Your task to perform on an android device: Go to settings Image 0: 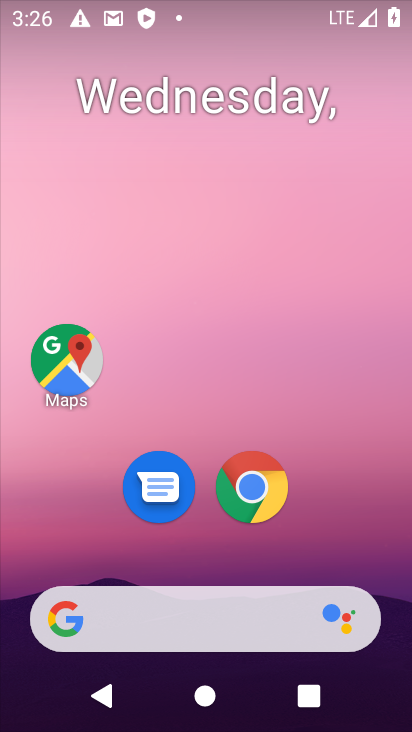
Step 0: drag from (361, 521) to (304, 57)
Your task to perform on an android device: Go to settings Image 1: 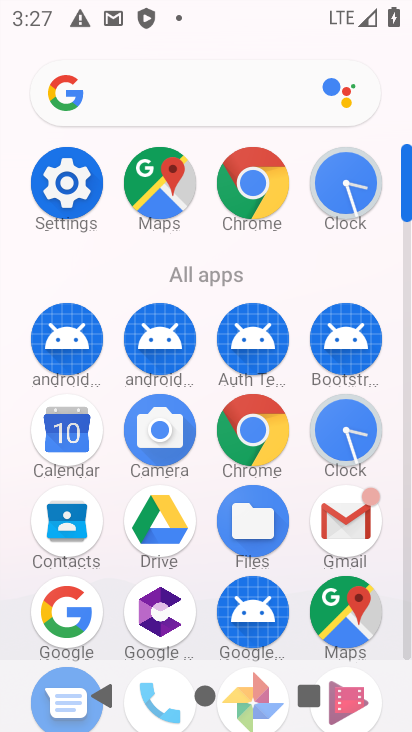
Step 1: click (66, 187)
Your task to perform on an android device: Go to settings Image 2: 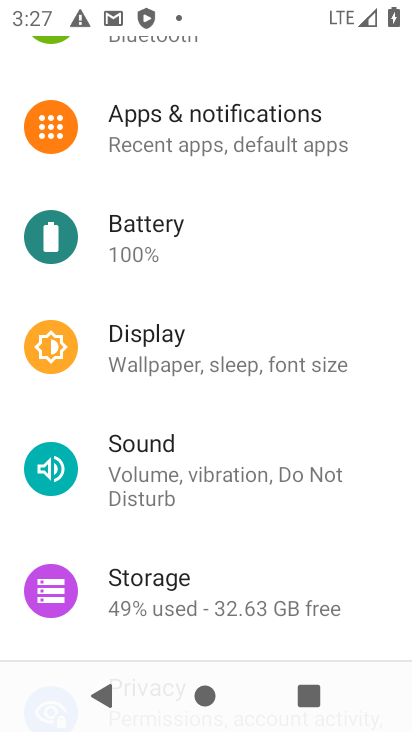
Step 2: task complete